Your task to perform on an android device: check out phone information Image 0: 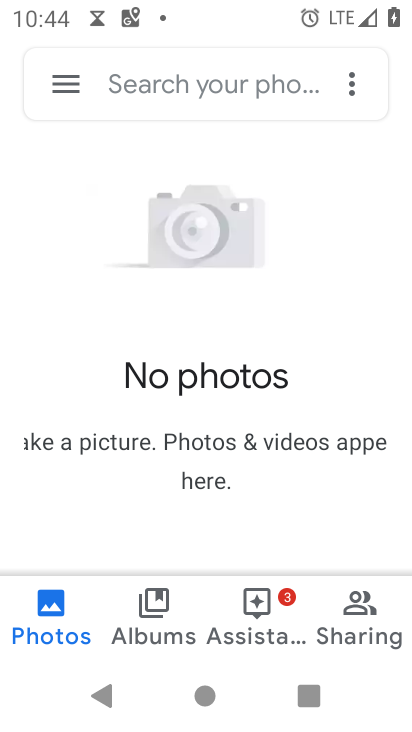
Step 0: press home button
Your task to perform on an android device: check out phone information Image 1: 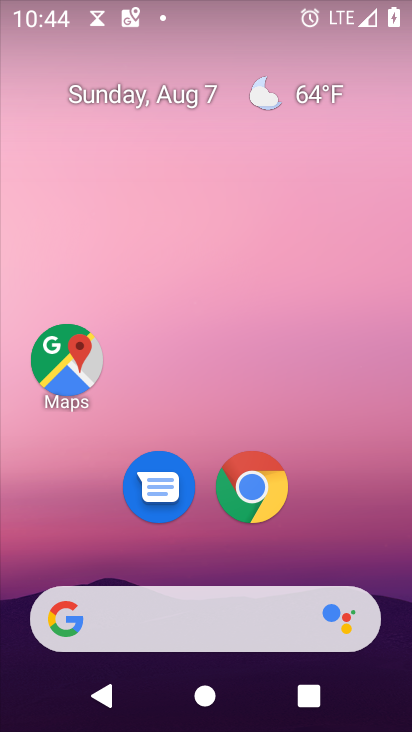
Step 1: drag from (380, 681) to (211, 98)
Your task to perform on an android device: check out phone information Image 2: 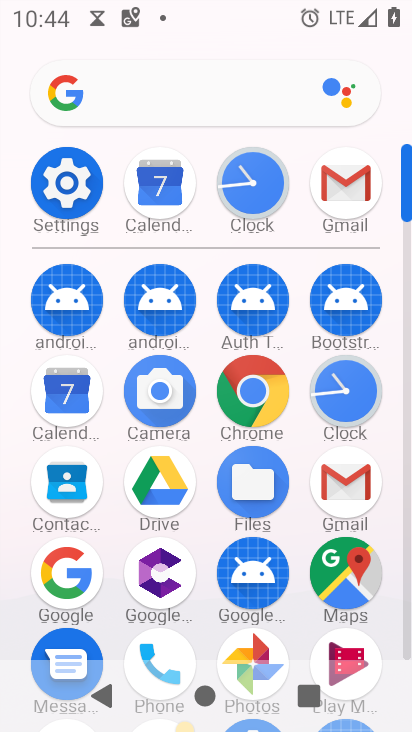
Step 2: click (76, 173)
Your task to perform on an android device: check out phone information Image 3: 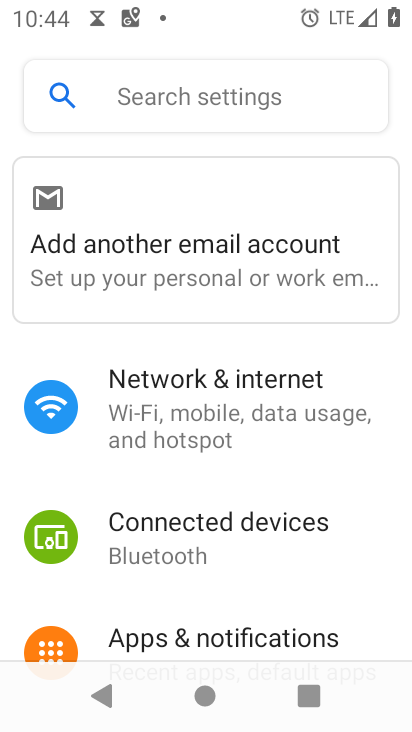
Step 3: drag from (342, 627) to (245, 129)
Your task to perform on an android device: check out phone information Image 4: 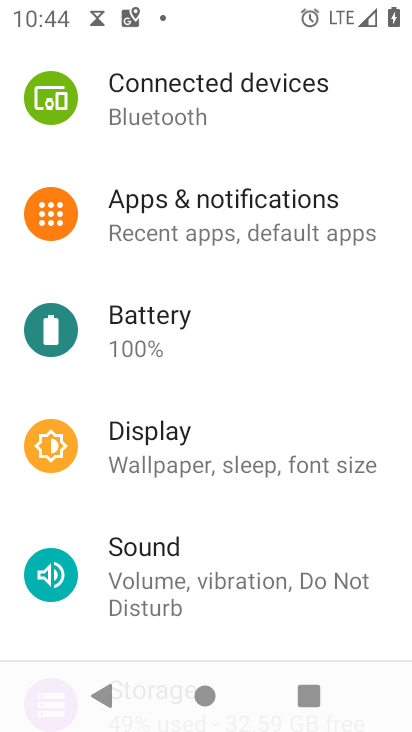
Step 4: drag from (295, 630) to (228, 89)
Your task to perform on an android device: check out phone information Image 5: 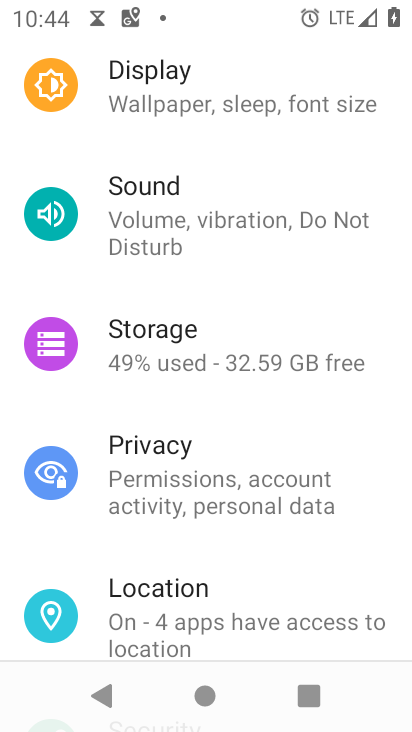
Step 5: drag from (278, 632) to (266, 136)
Your task to perform on an android device: check out phone information Image 6: 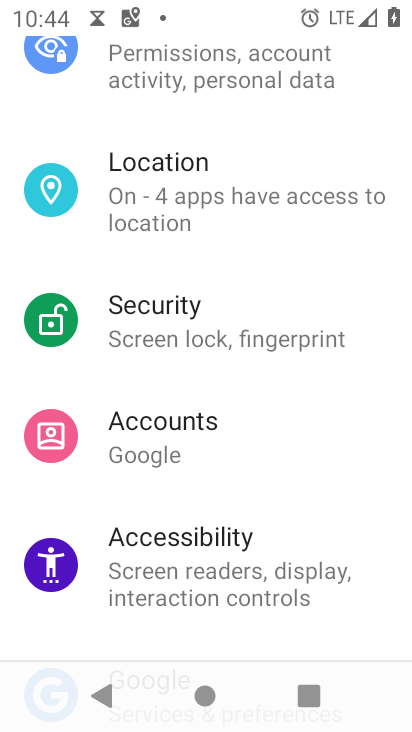
Step 6: drag from (298, 637) to (293, 203)
Your task to perform on an android device: check out phone information Image 7: 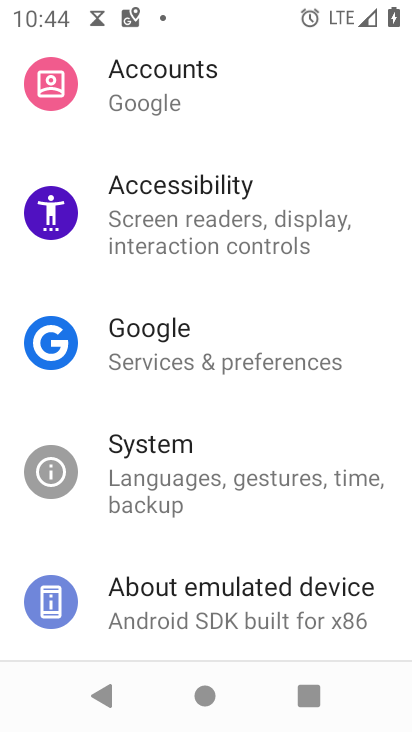
Step 7: drag from (297, 613) to (284, 236)
Your task to perform on an android device: check out phone information Image 8: 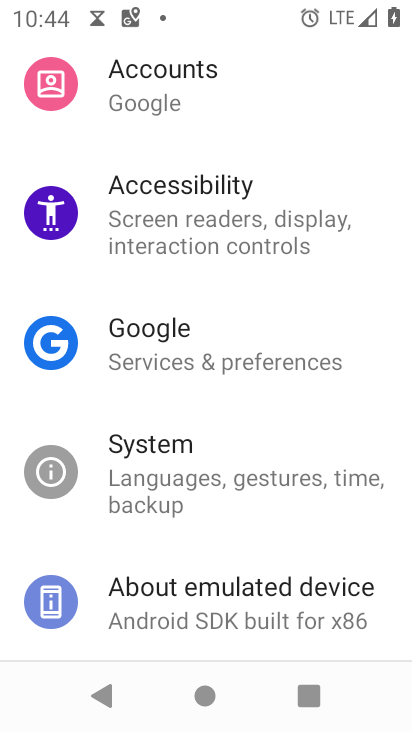
Step 8: click (143, 584)
Your task to perform on an android device: check out phone information Image 9: 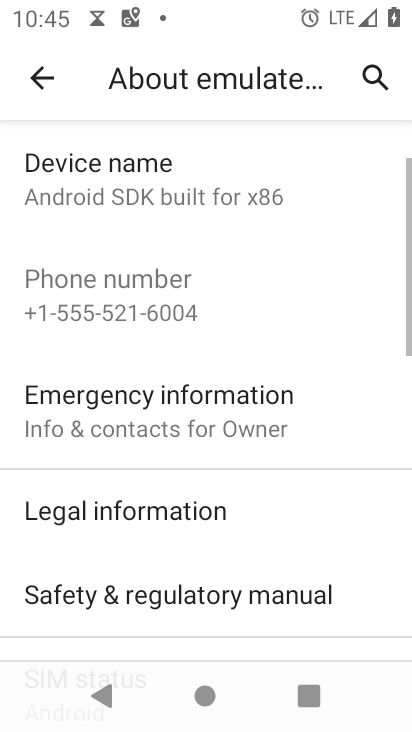
Step 9: task complete